Your task to perform on an android device: toggle sleep mode Image 0: 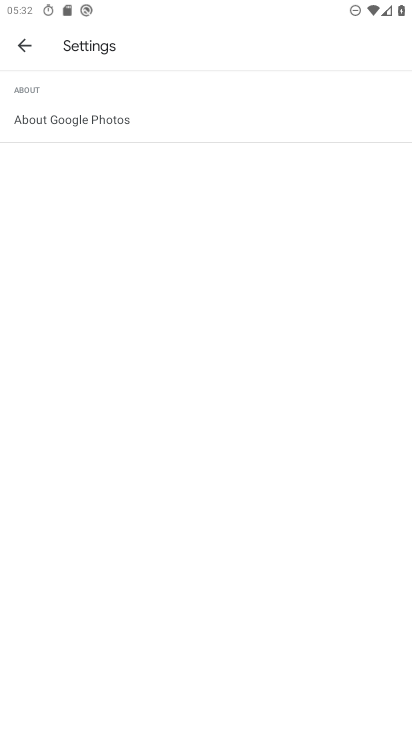
Step 0: press home button
Your task to perform on an android device: toggle sleep mode Image 1: 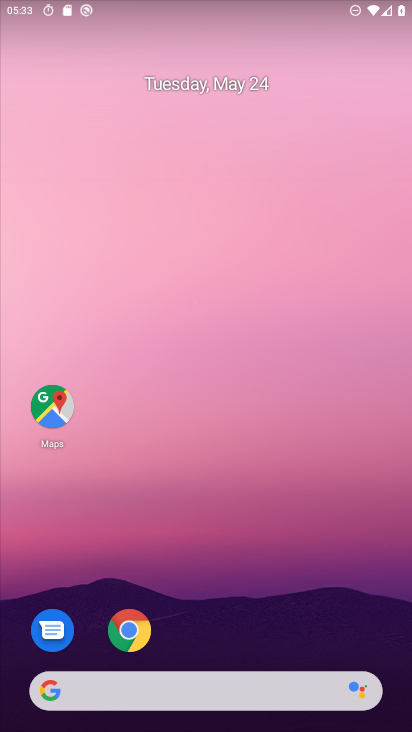
Step 1: drag from (254, 593) to (298, 182)
Your task to perform on an android device: toggle sleep mode Image 2: 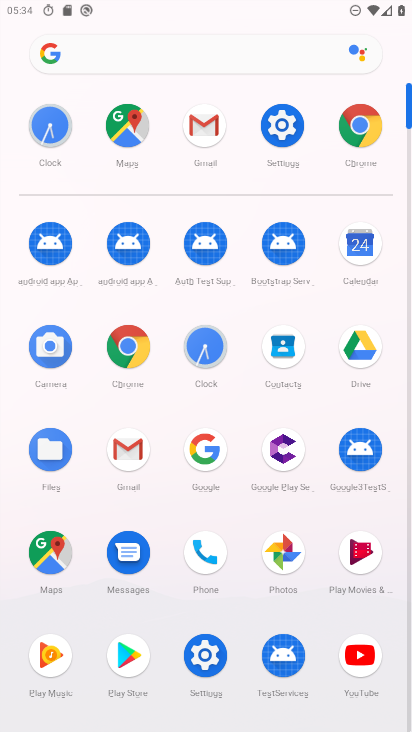
Step 2: click (276, 119)
Your task to perform on an android device: toggle sleep mode Image 3: 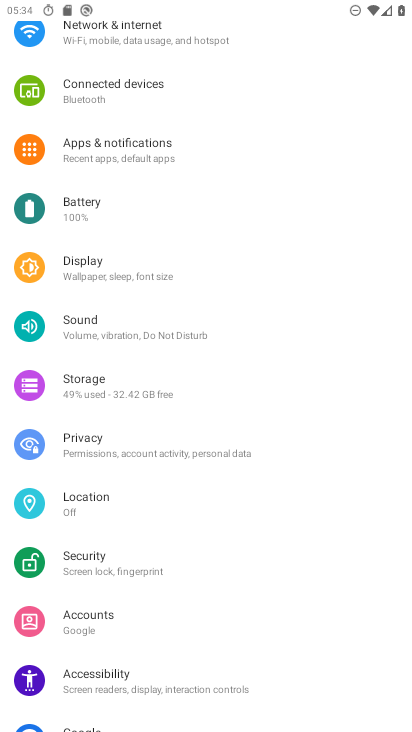
Step 3: task complete